Your task to perform on an android device: Open settings Image 0: 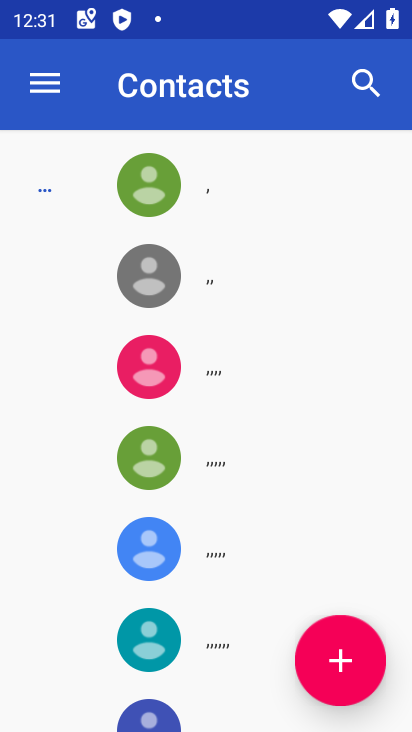
Step 0: press home button
Your task to perform on an android device: Open settings Image 1: 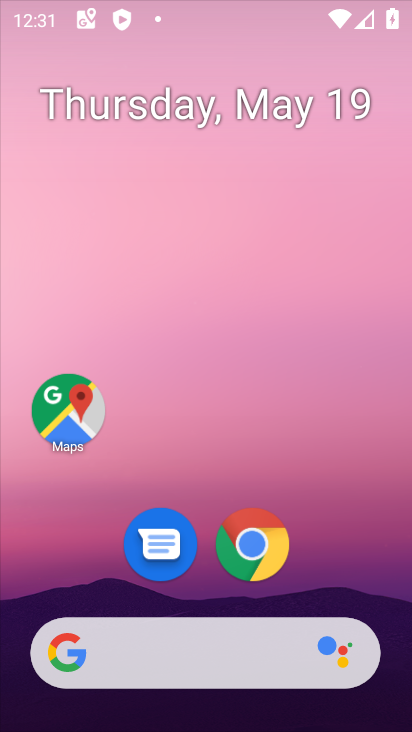
Step 1: drag from (322, 642) to (384, 30)
Your task to perform on an android device: Open settings Image 2: 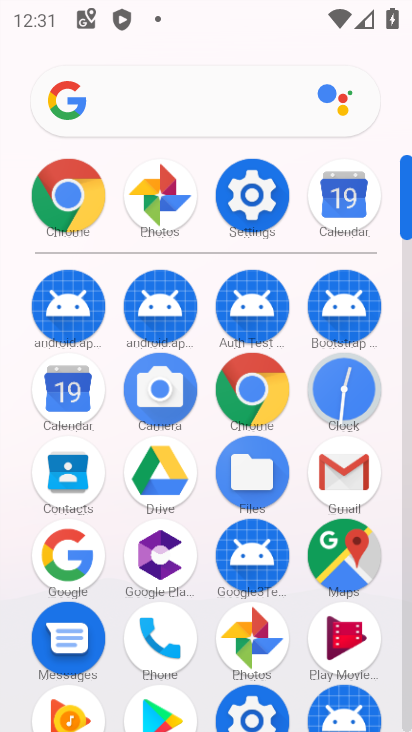
Step 2: click (268, 197)
Your task to perform on an android device: Open settings Image 3: 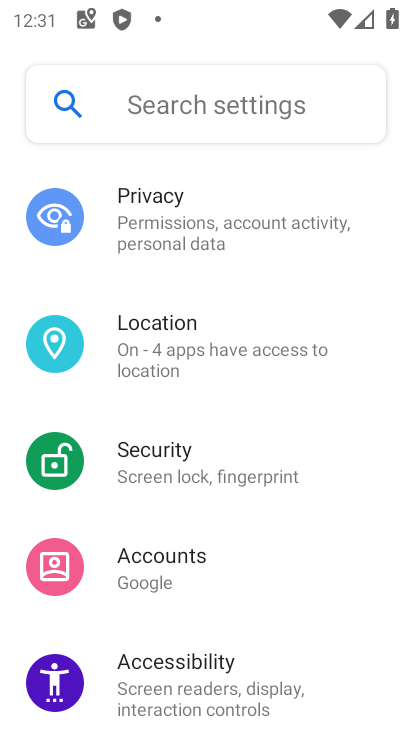
Step 3: task complete